Your task to perform on an android device: Search for sushi restaurants on Maps Image 0: 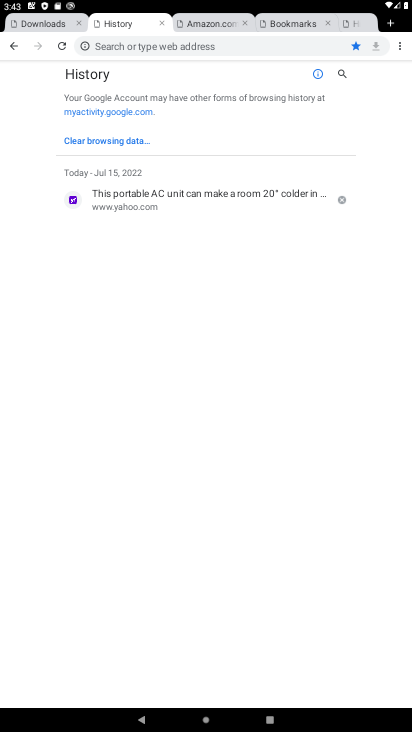
Step 0: press home button
Your task to perform on an android device: Search for sushi restaurants on Maps Image 1: 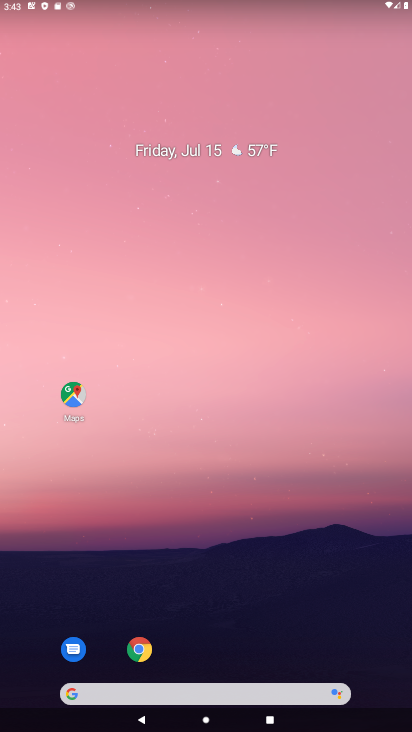
Step 1: drag from (240, 725) to (236, 130)
Your task to perform on an android device: Search for sushi restaurants on Maps Image 2: 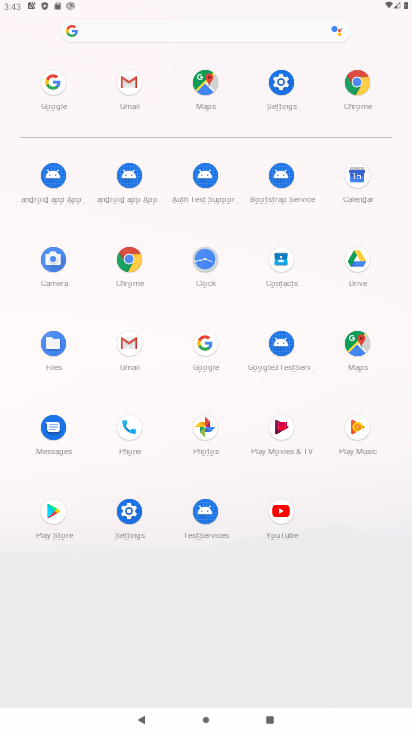
Step 2: click (359, 345)
Your task to perform on an android device: Search for sushi restaurants on Maps Image 3: 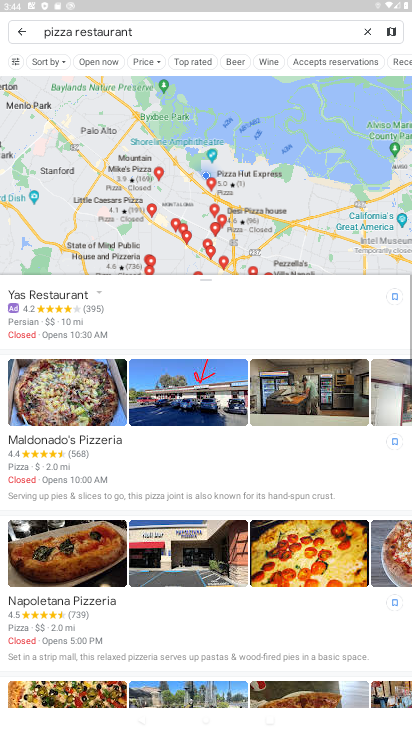
Step 3: click (371, 29)
Your task to perform on an android device: Search for sushi restaurants on Maps Image 4: 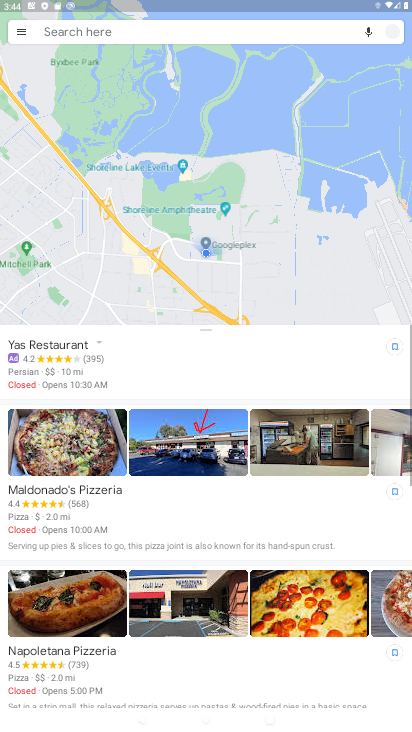
Step 4: click (162, 30)
Your task to perform on an android device: Search for sushi restaurants on Maps Image 5: 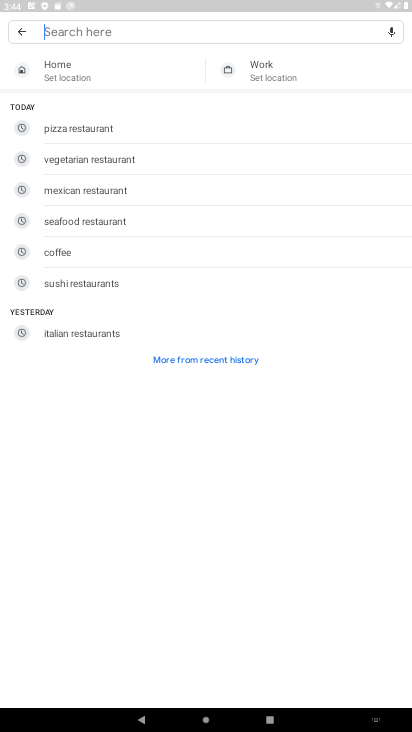
Step 5: type "sushi restaurants"
Your task to perform on an android device: Search for sushi restaurants on Maps Image 6: 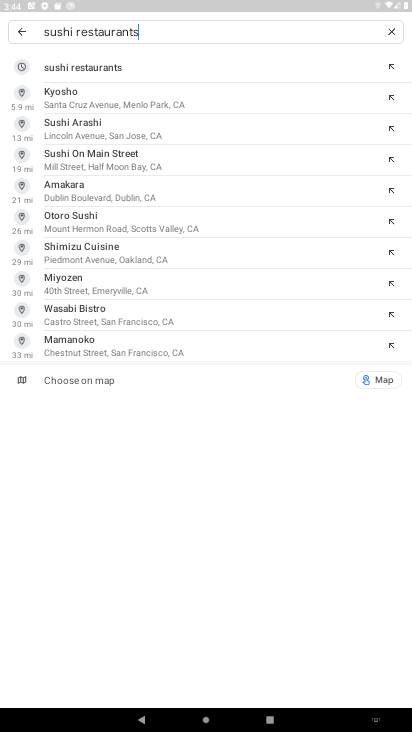
Step 6: click (83, 62)
Your task to perform on an android device: Search for sushi restaurants on Maps Image 7: 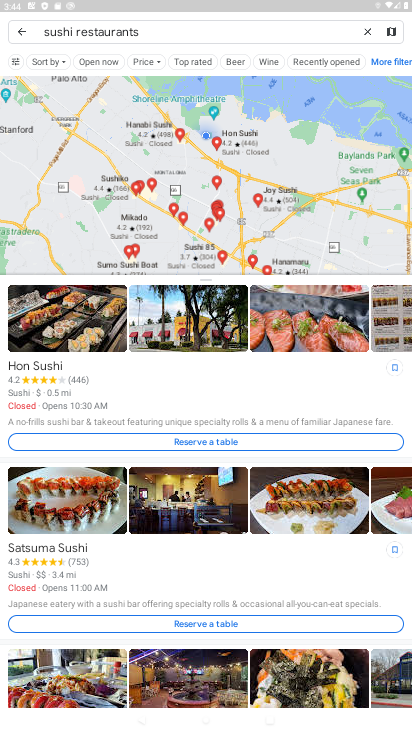
Step 7: task complete